Your task to perform on an android device: Open location settings Image 0: 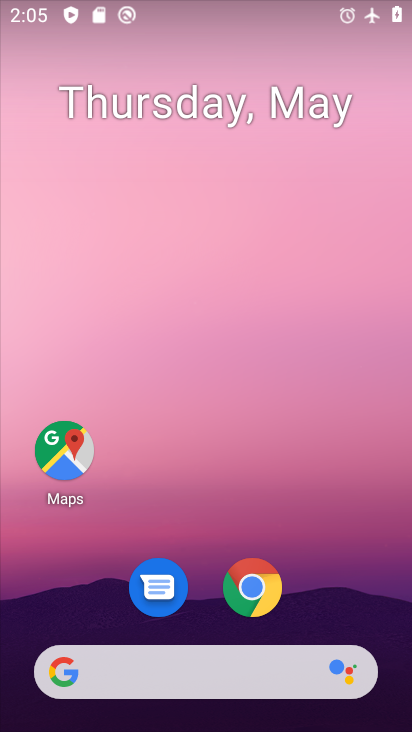
Step 0: drag from (308, 569) to (211, 174)
Your task to perform on an android device: Open location settings Image 1: 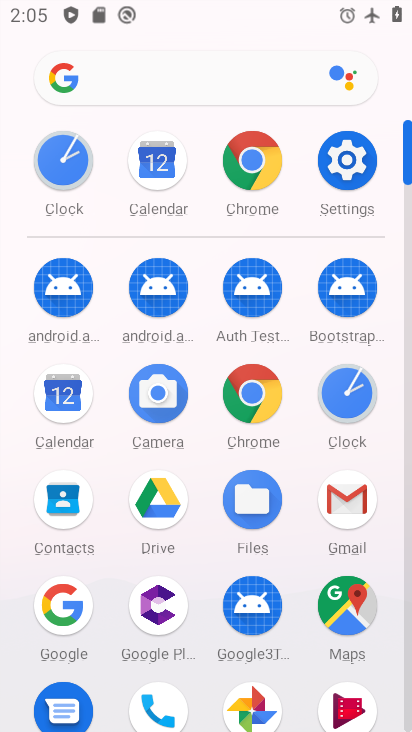
Step 1: click (352, 155)
Your task to perform on an android device: Open location settings Image 2: 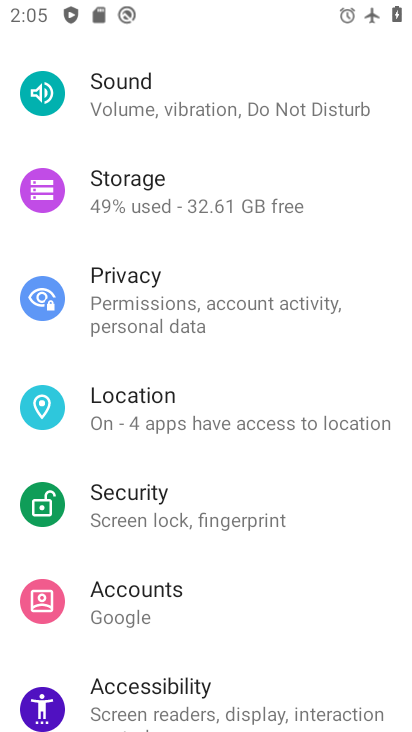
Step 2: click (125, 412)
Your task to perform on an android device: Open location settings Image 3: 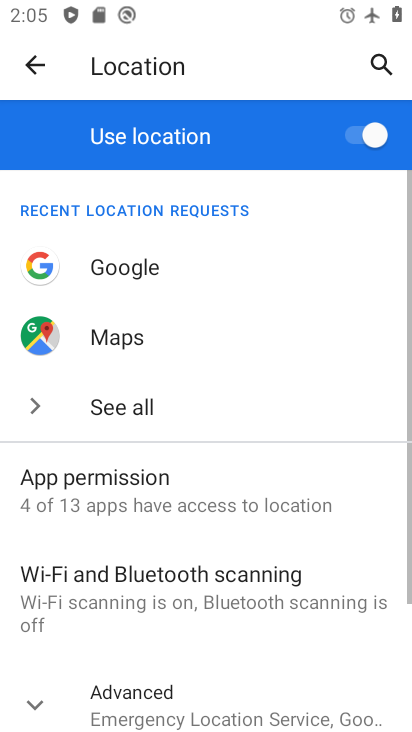
Step 3: task complete